Your task to perform on an android device: add a contact Image 0: 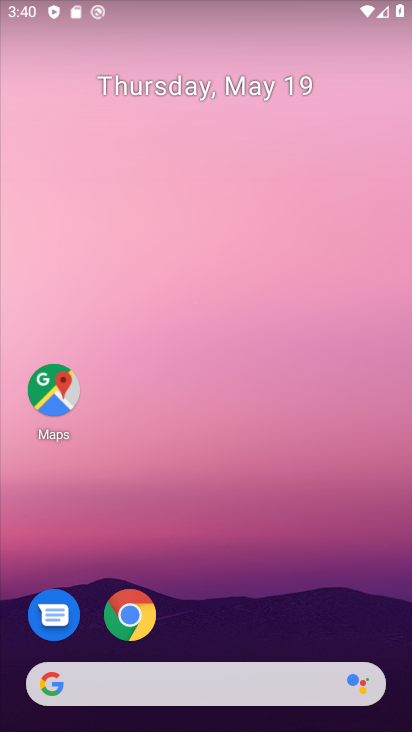
Step 0: drag from (337, 648) to (340, 14)
Your task to perform on an android device: add a contact Image 1: 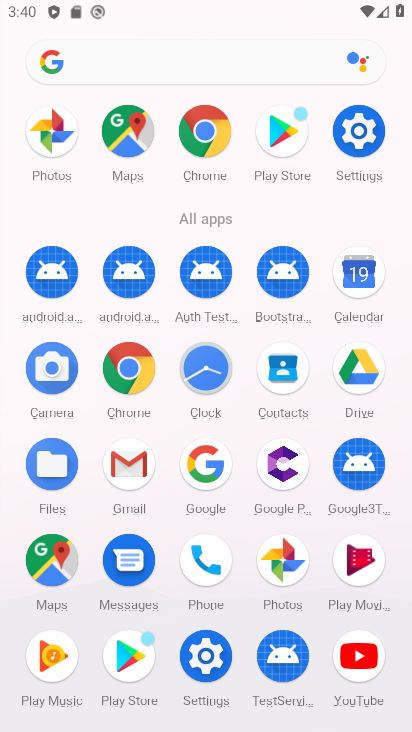
Step 1: click (276, 376)
Your task to perform on an android device: add a contact Image 2: 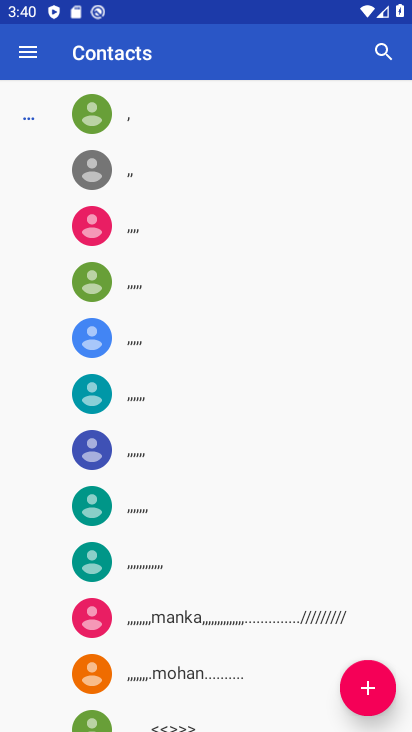
Step 2: click (373, 695)
Your task to perform on an android device: add a contact Image 3: 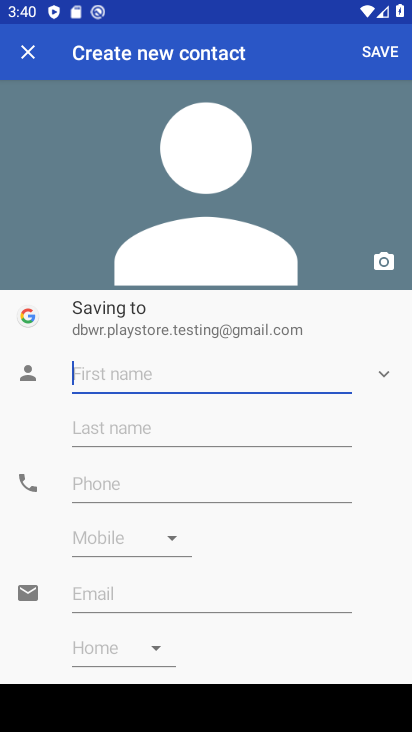
Step 3: click (120, 373)
Your task to perform on an android device: add a contact Image 4: 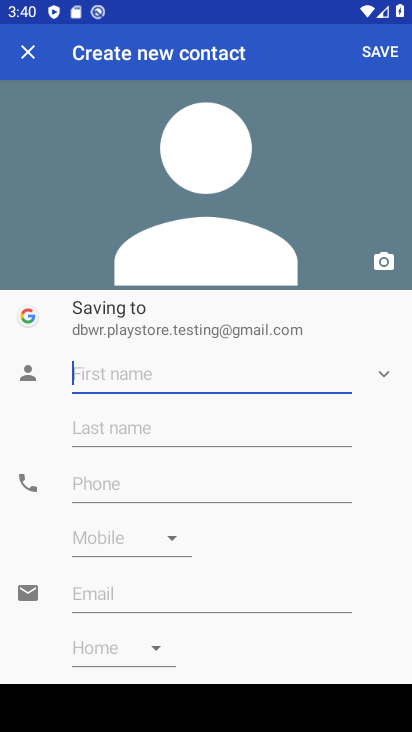
Step 4: type "titoo"
Your task to perform on an android device: add a contact Image 5: 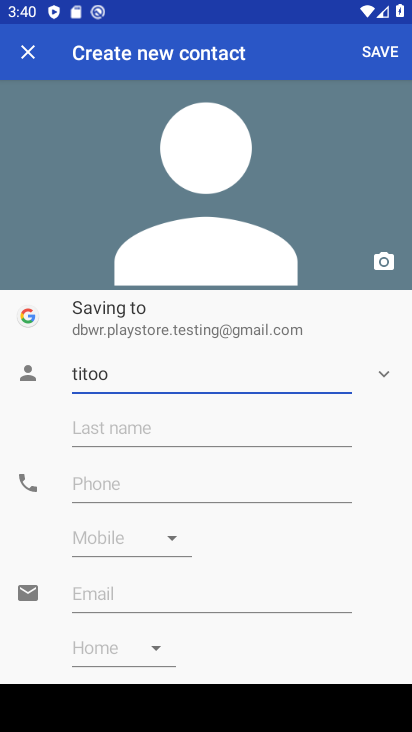
Step 5: click (134, 485)
Your task to perform on an android device: add a contact Image 6: 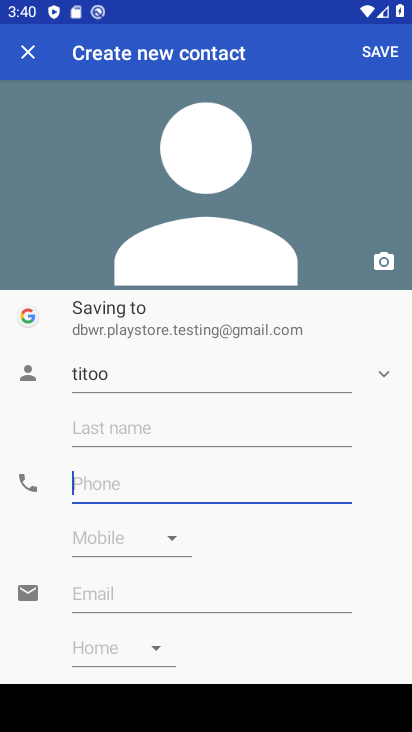
Step 6: type "654435567"
Your task to perform on an android device: add a contact Image 7: 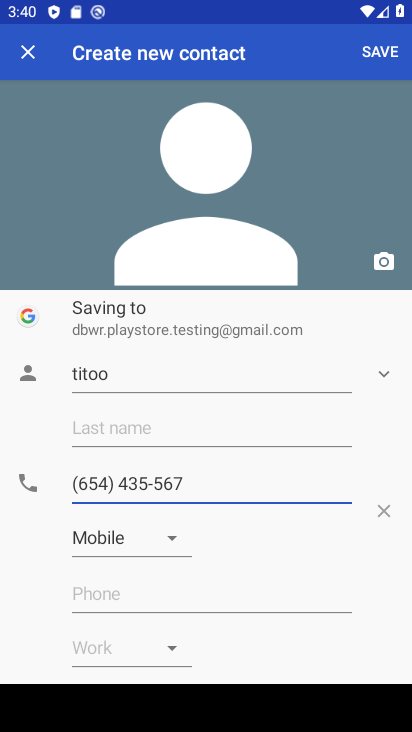
Step 7: click (379, 52)
Your task to perform on an android device: add a contact Image 8: 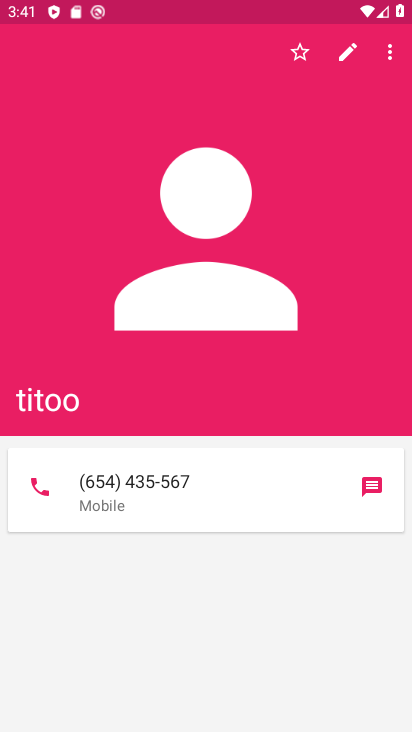
Step 8: task complete